Your task to perform on an android device: Open display settings Image 0: 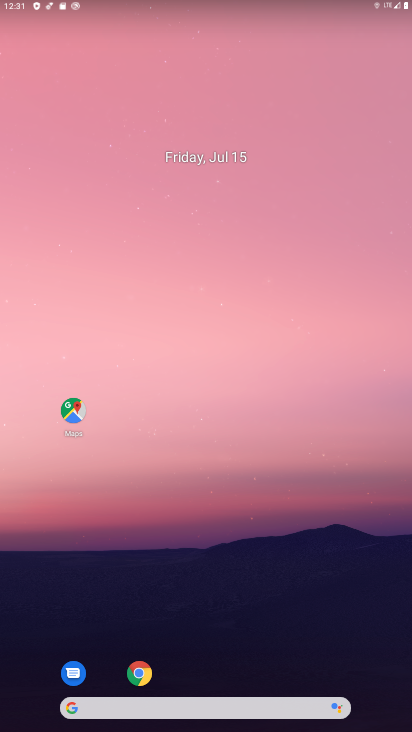
Step 0: drag from (377, 710) to (369, 147)
Your task to perform on an android device: Open display settings Image 1: 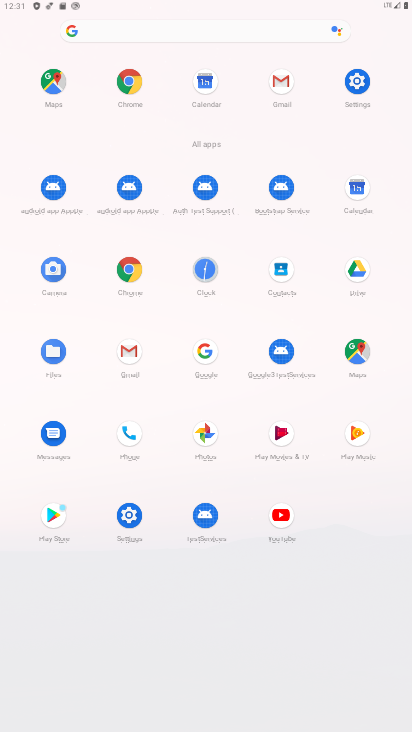
Step 1: click (127, 506)
Your task to perform on an android device: Open display settings Image 2: 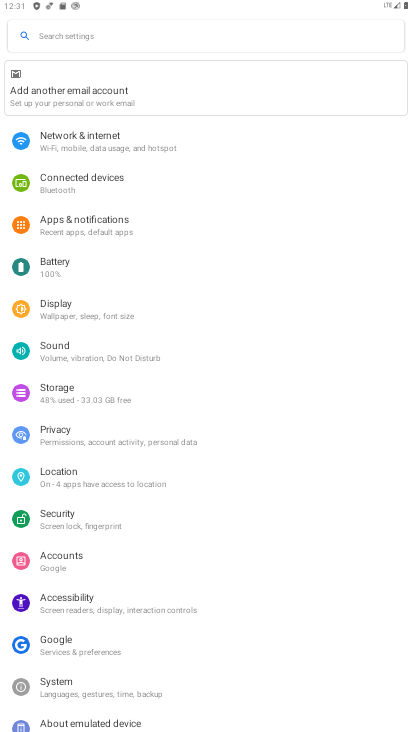
Step 2: click (52, 312)
Your task to perform on an android device: Open display settings Image 3: 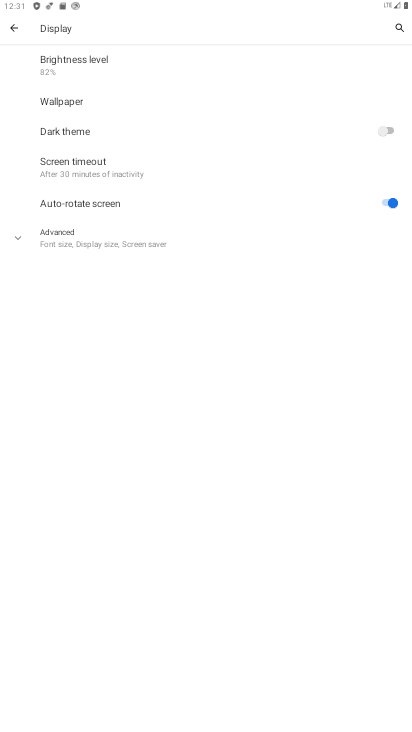
Step 3: task complete